Your task to perform on an android device: see creations saved in the google photos Image 0: 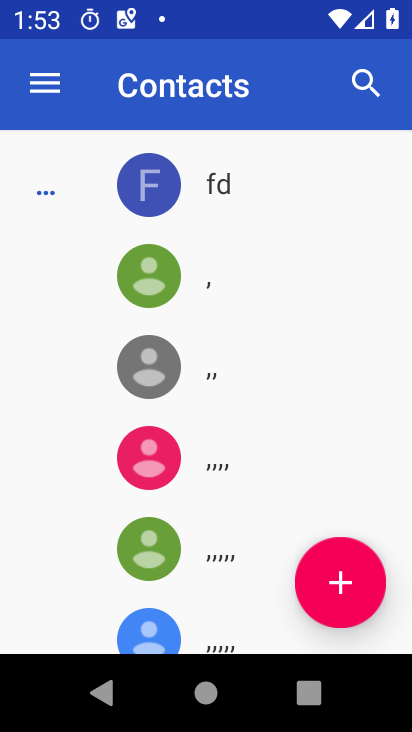
Step 0: press home button
Your task to perform on an android device: see creations saved in the google photos Image 1: 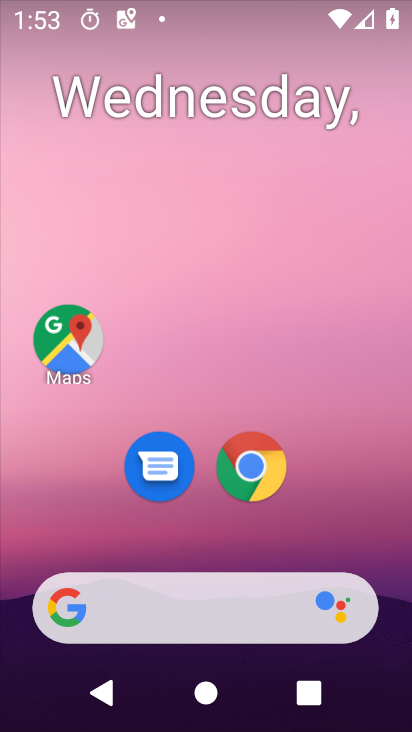
Step 1: drag from (343, 479) to (330, 8)
Your task to perform on an android device: see creations saved in the google photos Image 2: 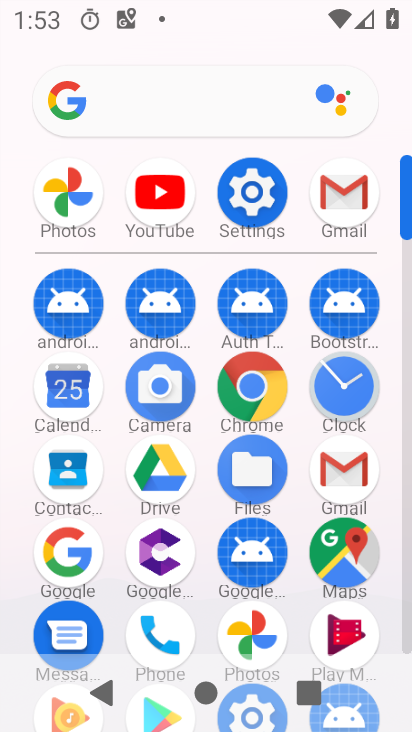
Step 2: click (238, 632)
Your task to perform on an android device: see creations saved in the google photos Image 3: 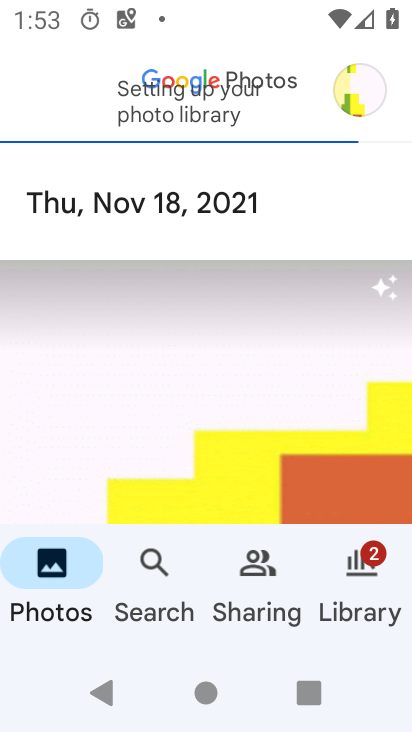
Step 3: task complete